Your task to perform on an android device: change alarm snooze length Image 0: 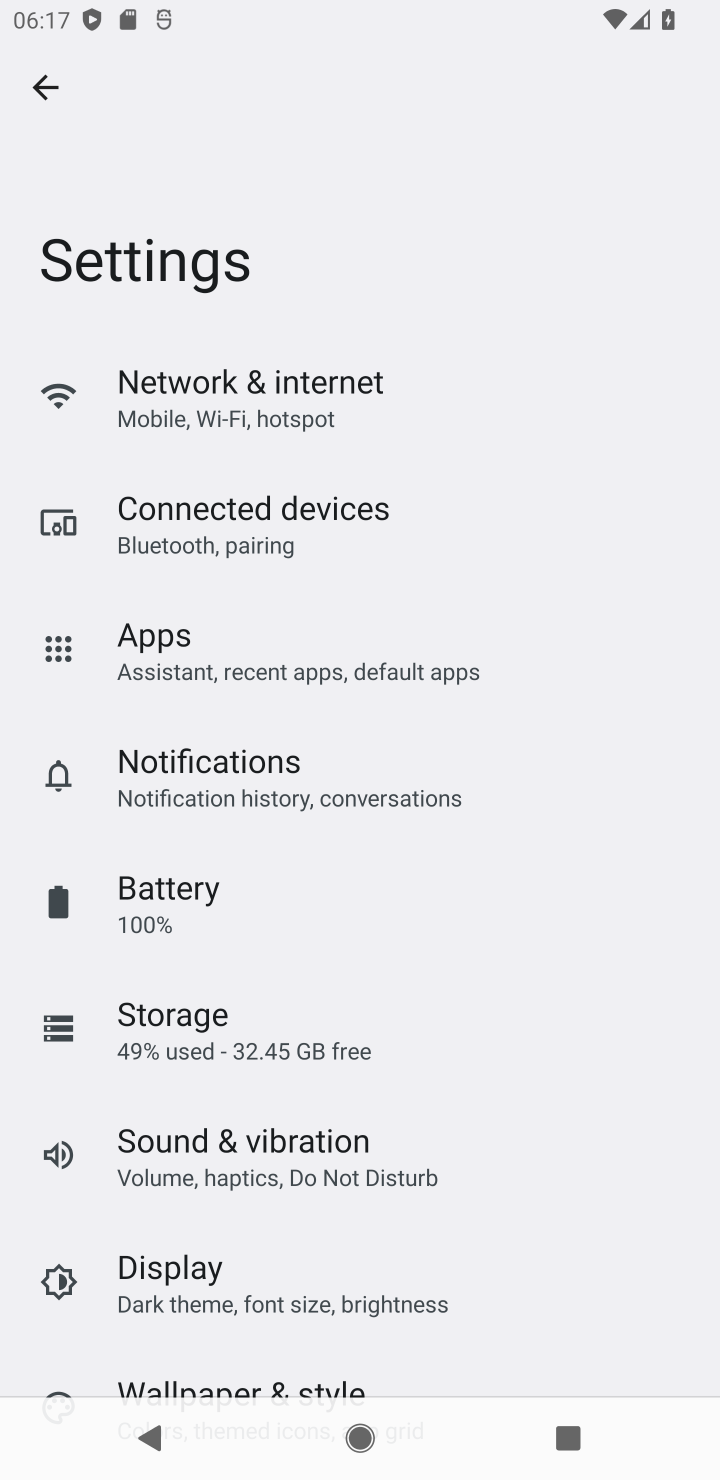
Step 0: press home button
Your task to perform on an android device: change alarm snooze length Image 1: 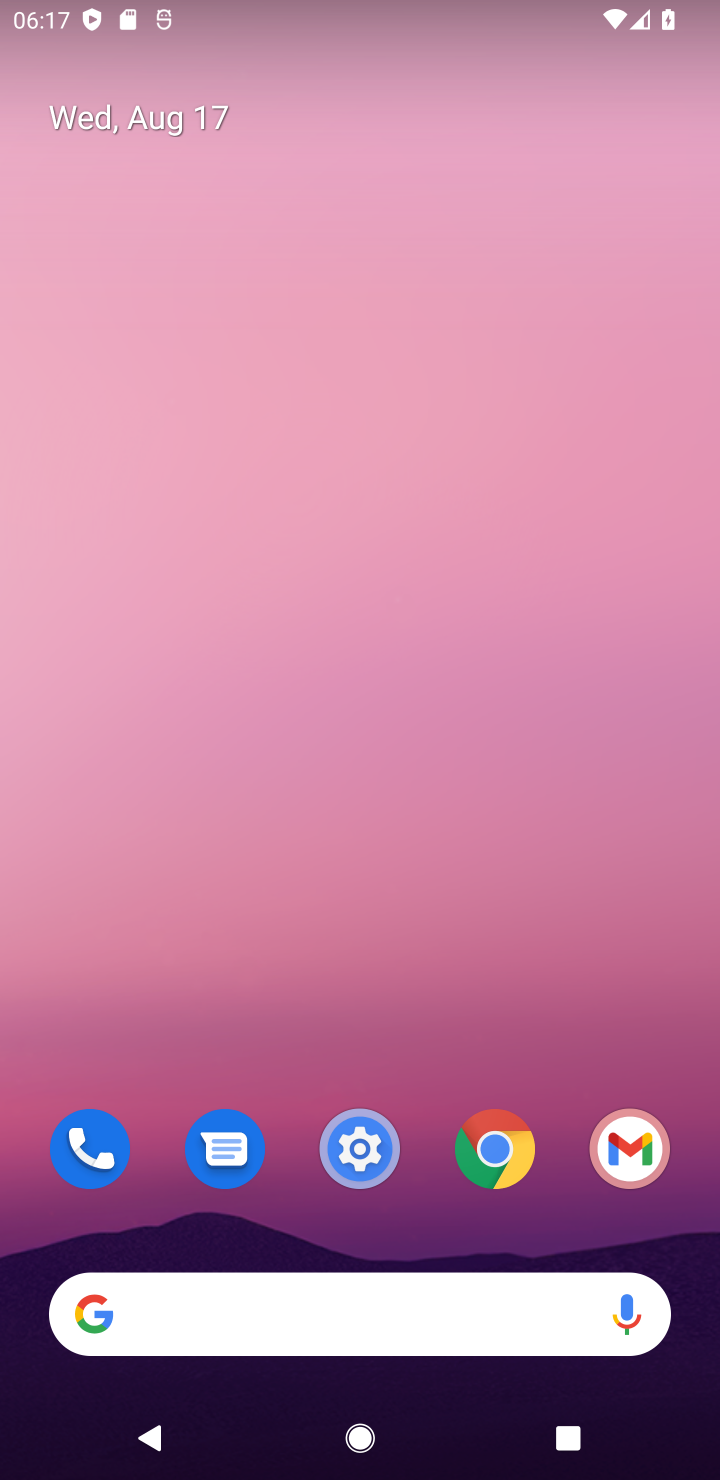
Step 1: drag from (374, 992) to (363, 187)
Your task to perform on an android device: change alarm snooze length Image 2: 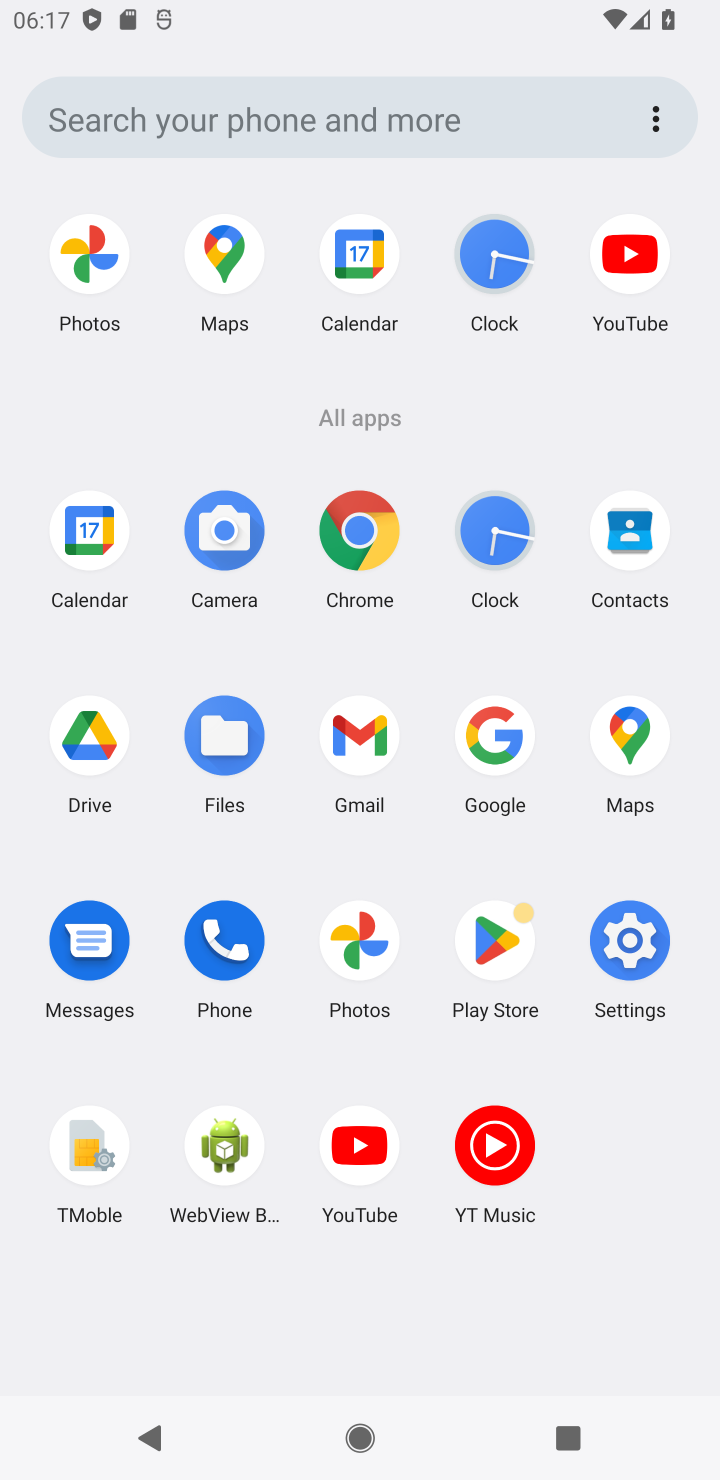
Step 2: click (479, 517)
Your task to perform on an android device: change alarm snooze length Image 3: 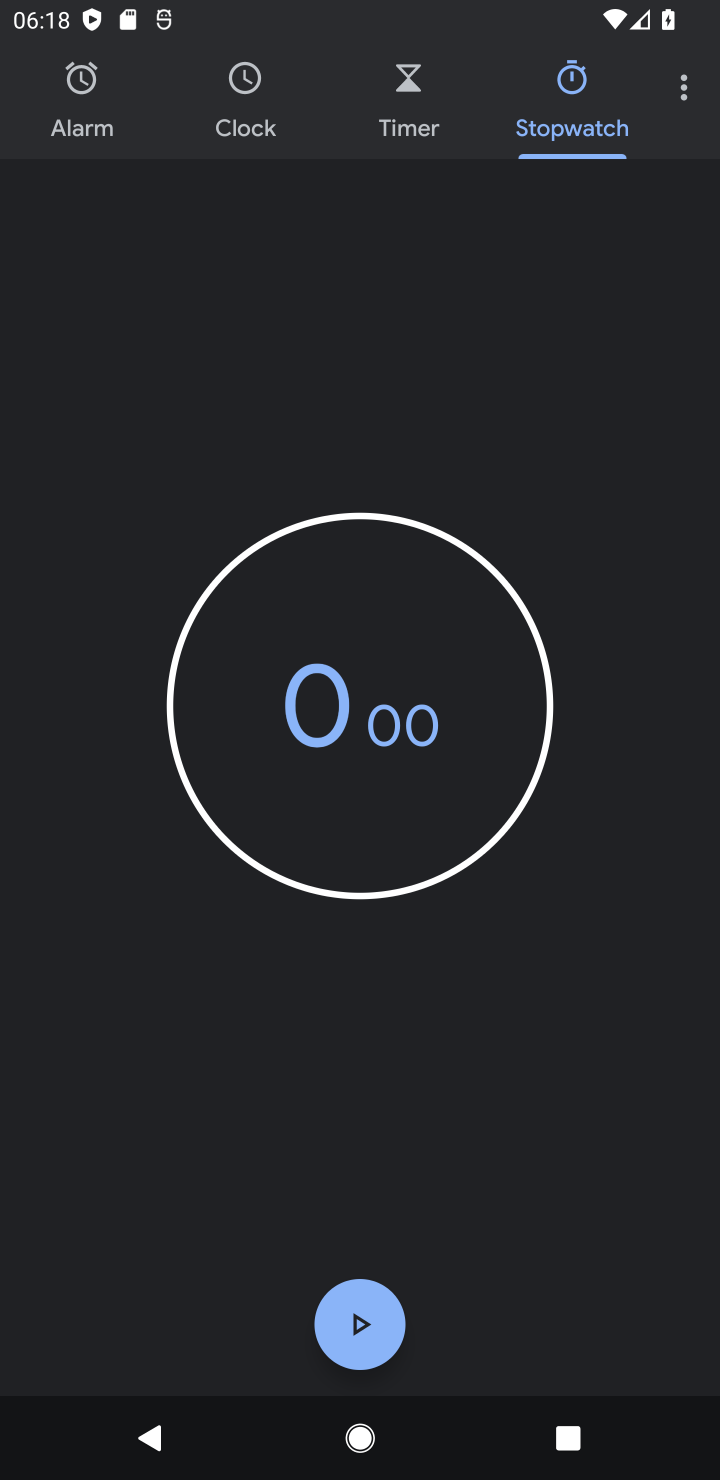
Step 3: click (668, 76)
Your task to perform on an android device: change alarm snooze length Image 4: 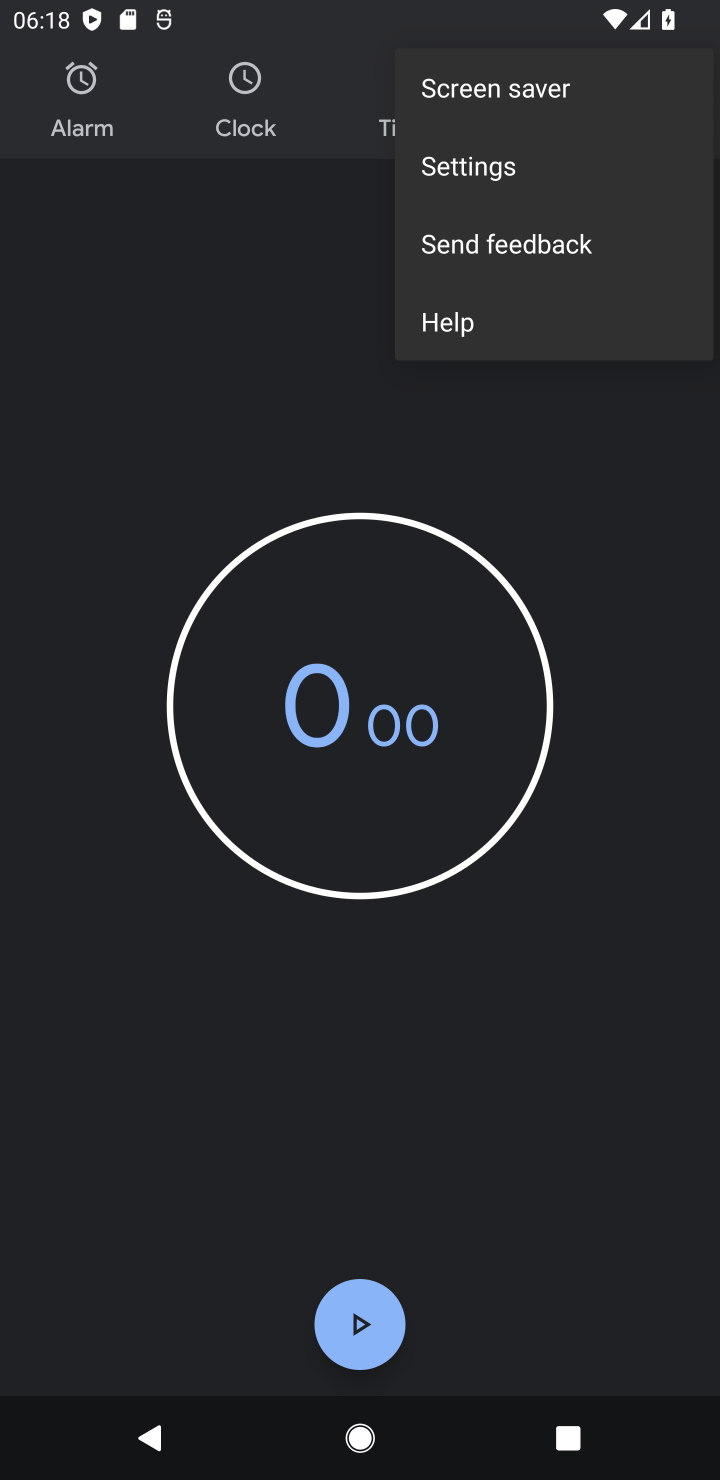
Step 4: click (465, 173)
Your task to perform on an android device: change alarm snooze length Image 5: 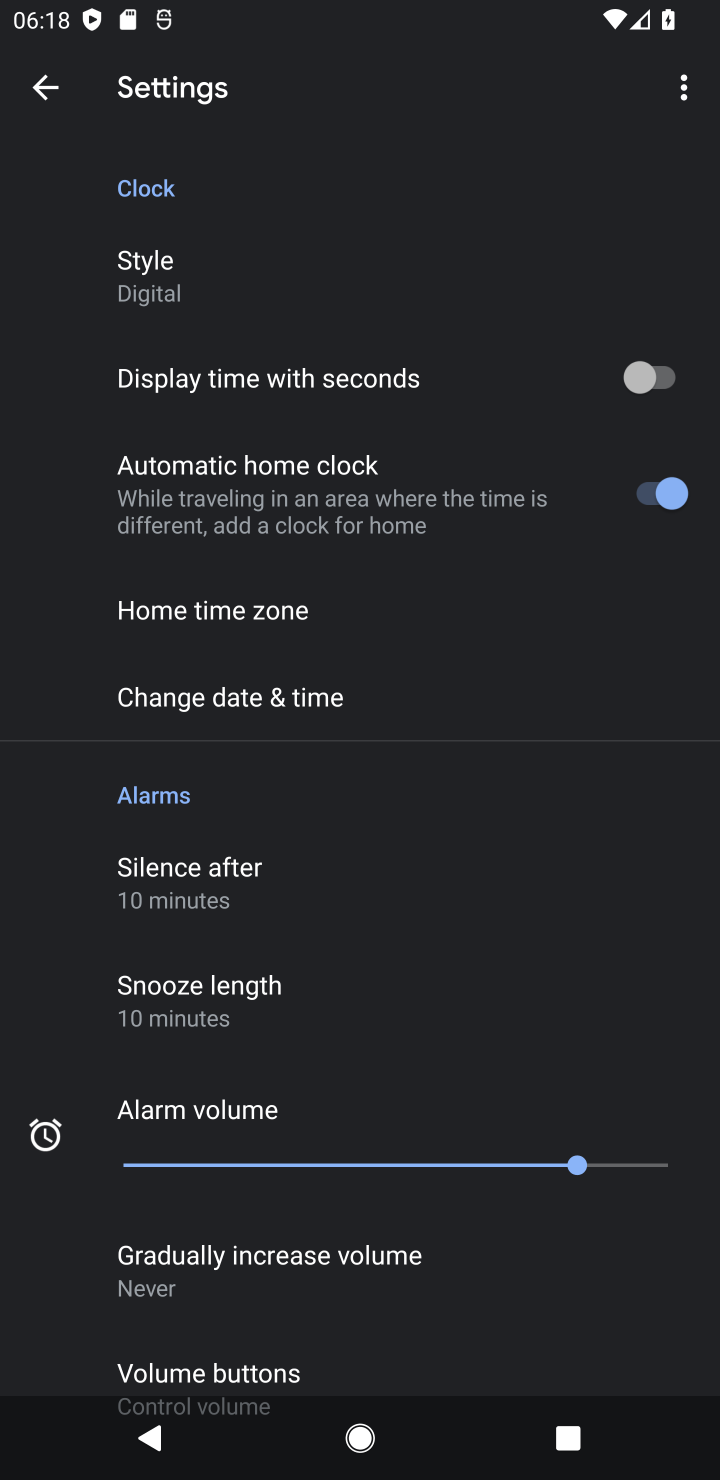
Step 5: click (266, 981)
Your task to perform on an android device: change alarm snooze length Image 6: 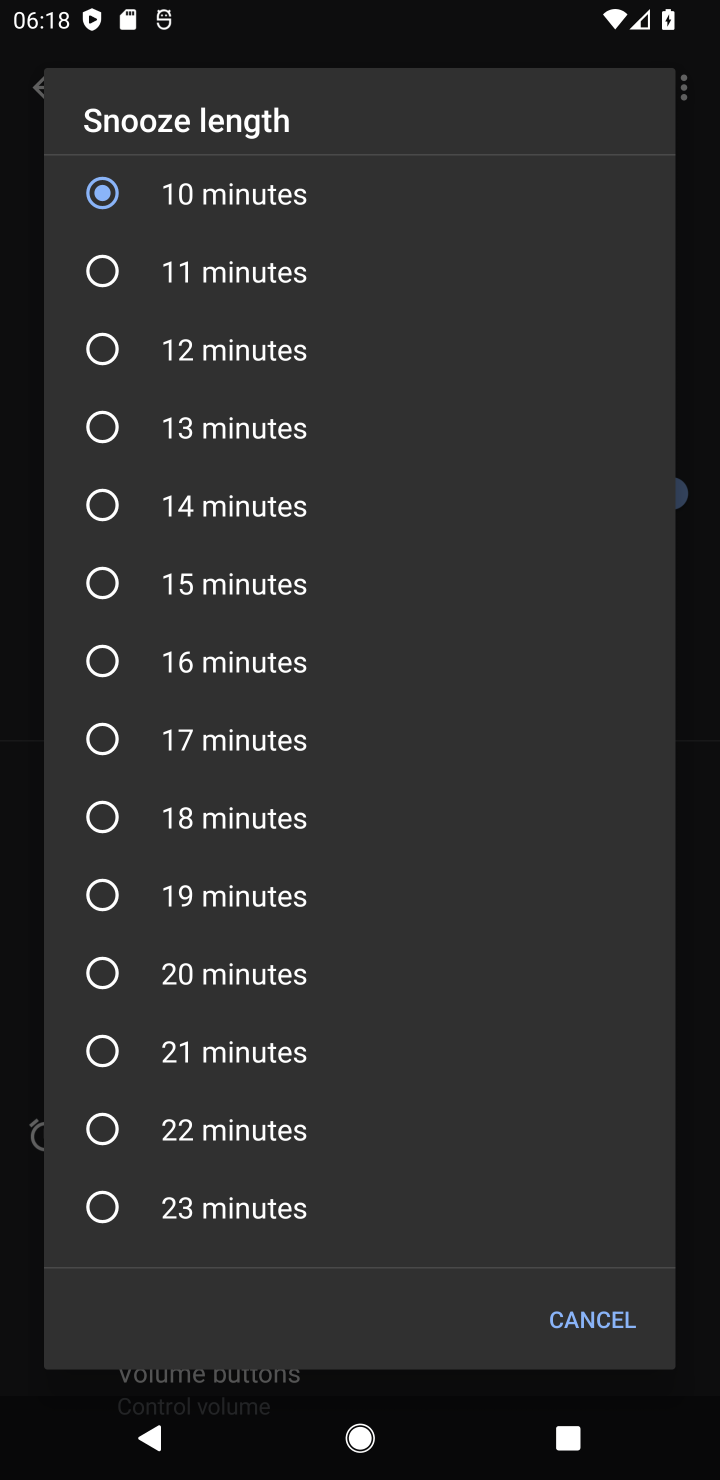
Step 6: click (97, 580)
Your task to perform on an android device: change alarm snooze length Image 7: 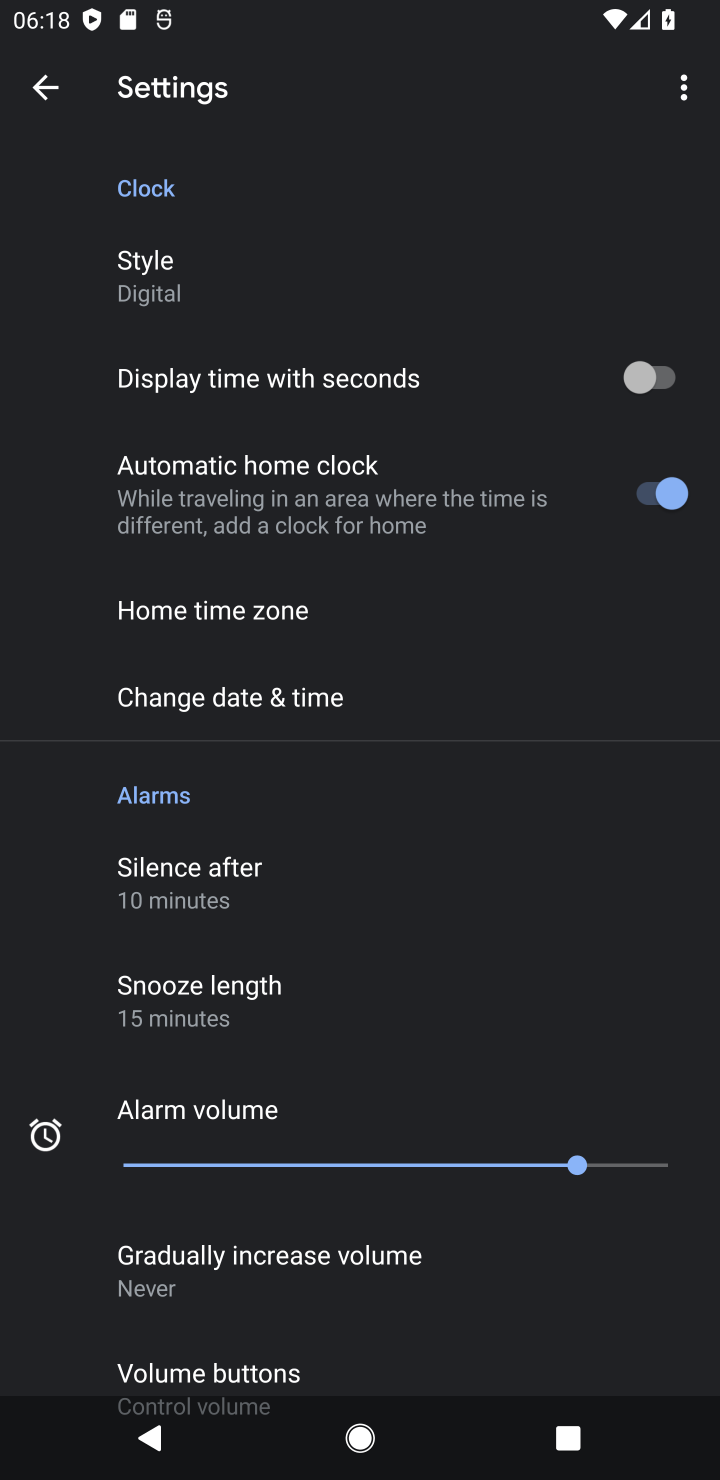
Step 7: task complete